Your task to perform on an android device: Open the calendar and show me this week's events? Image 0: 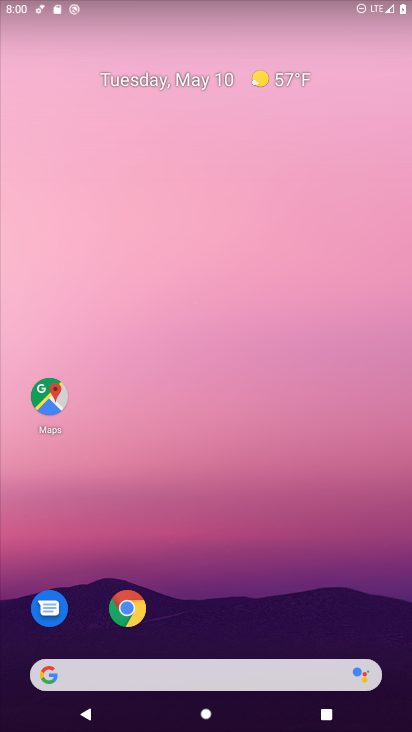
Step 0: drag from (357, 611) to (269, 56)
Your task to perform on an android device: Open the calendar and show me this week's events? Image 1: 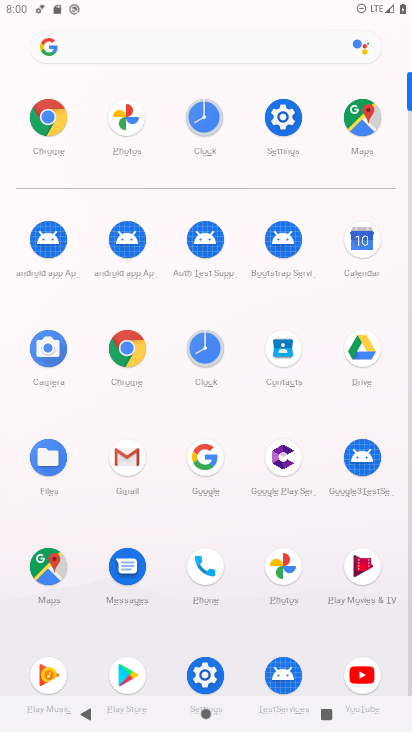
Step 1: click (361, 253)
Your task to perform on an android device: Open the calendar and show me this week's events? Image 2: 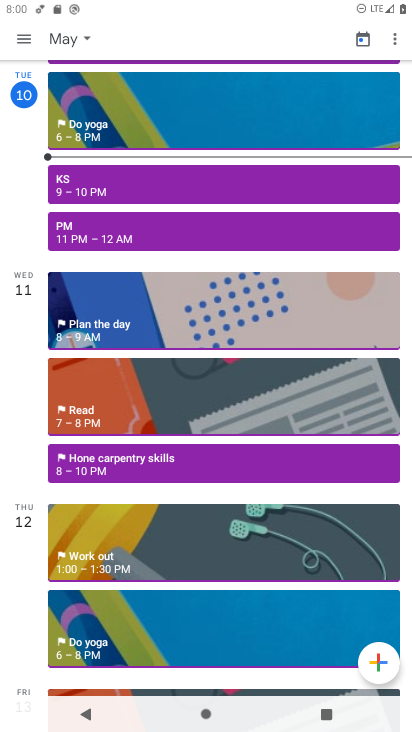
Step 2: click (23, 33)
Your task to perform on an android device: Open the calendar and show me this week's events? Image 3: 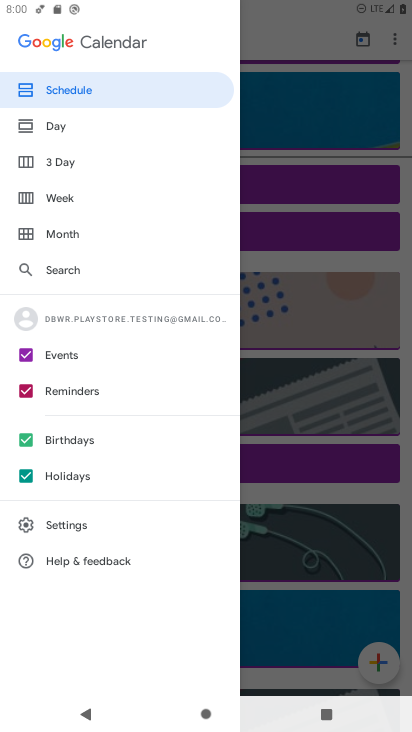
Step 3: click (95, 90)
Your task to perform on an android device: Open the calendar and show me this week's events? Image 4: 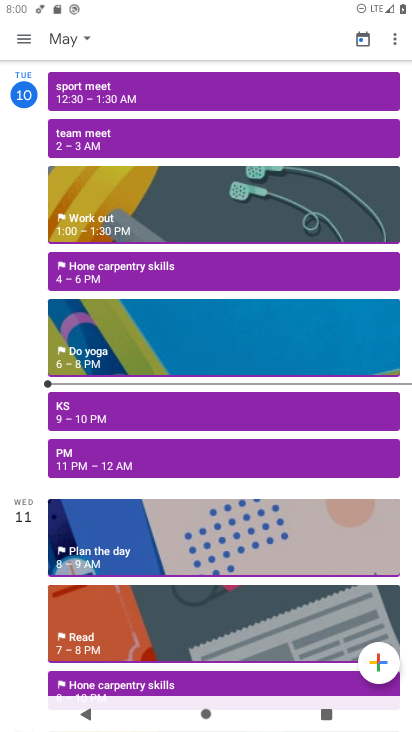
Step 4: task complete